Your task to perform on an android device: View the shopping cart on target. Image 0: 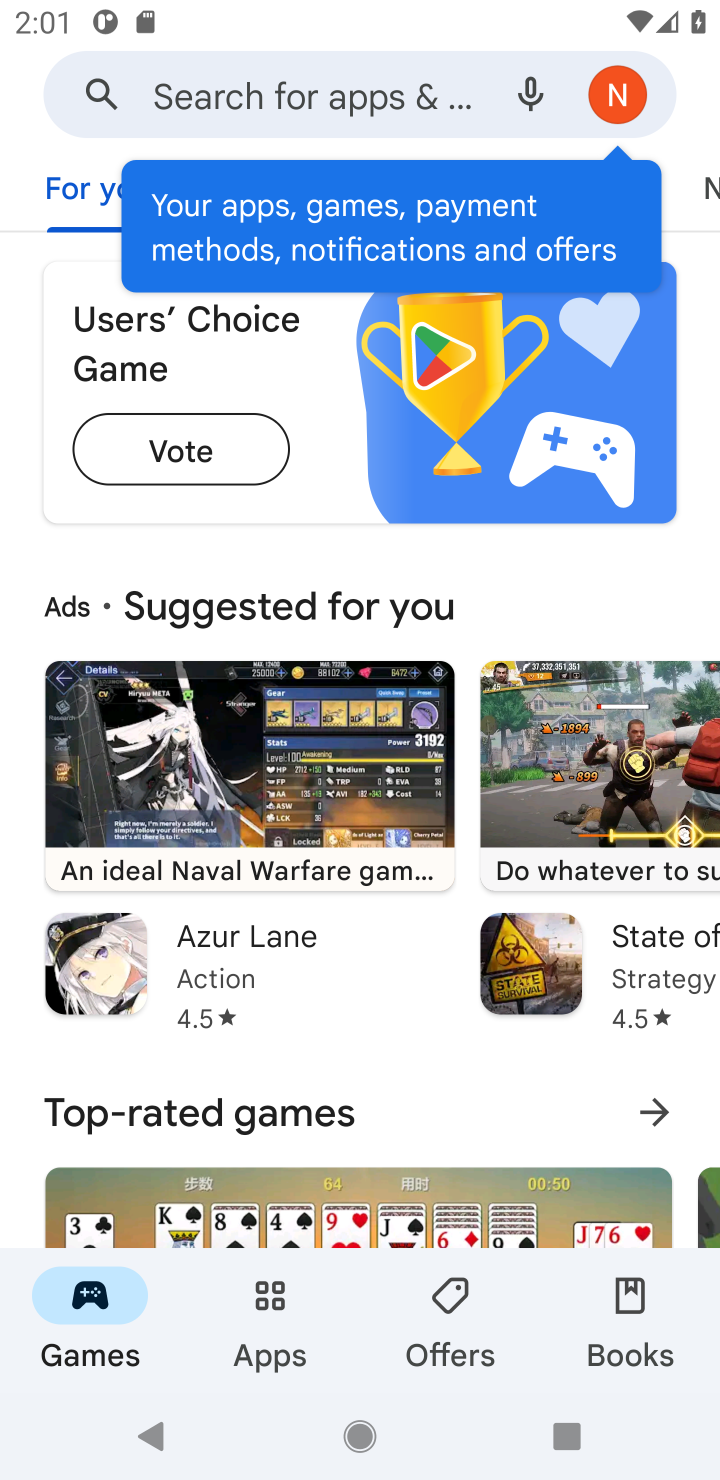
Step 0: press home button
Your task to perform on an android device: View the shopping cart on target. Image 1: 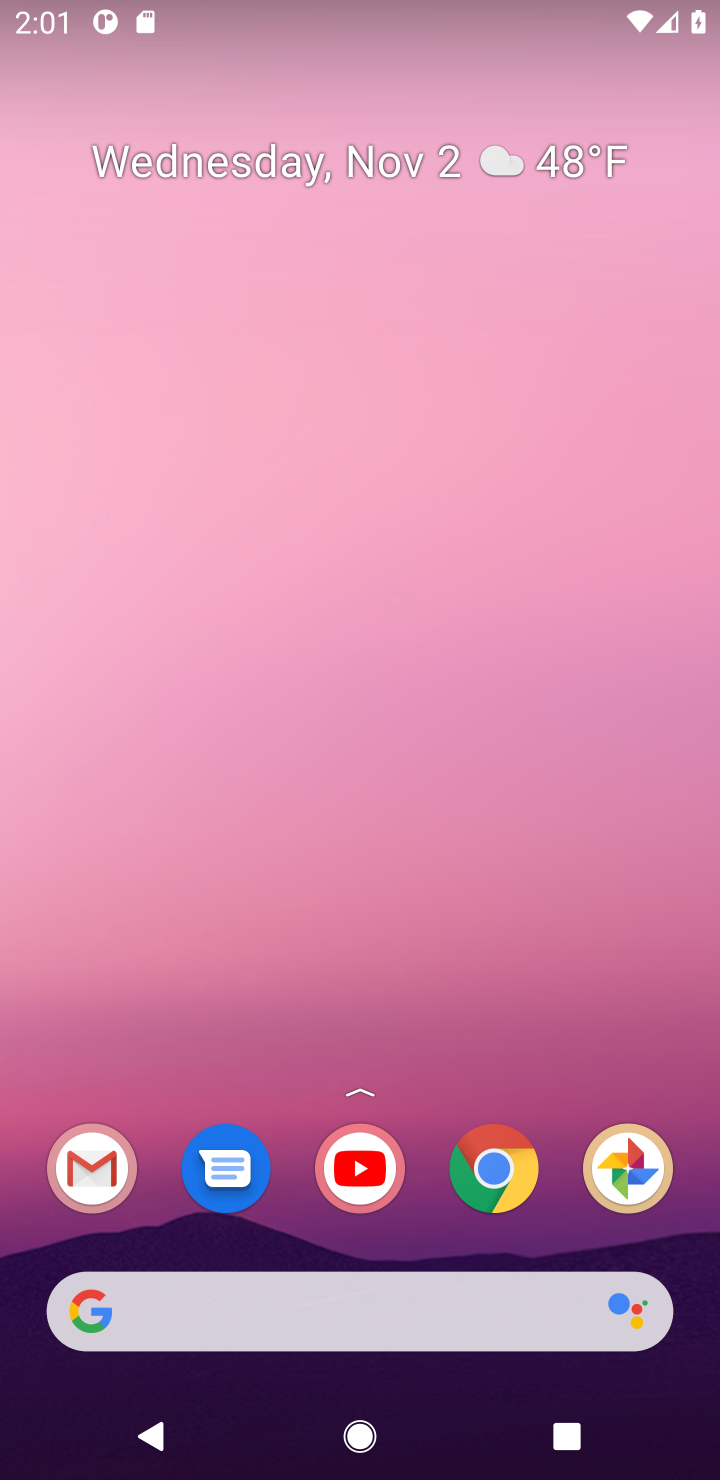
Step 1: click (682, 1224)
Your task to perform on an android device: View the shopping cart on target. Image 2: 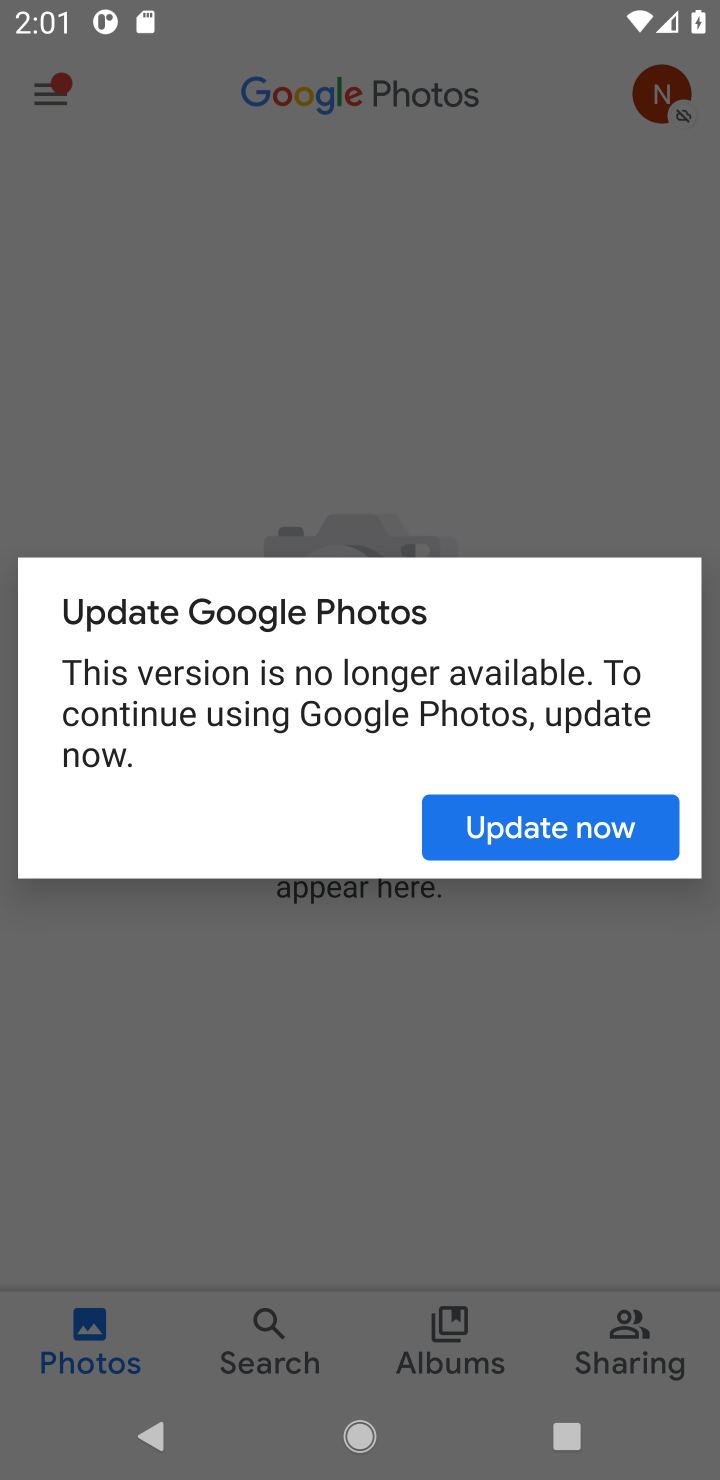
Step 2: press home button
Your task to perform on an android device: View the shopping cart on target. Image 3: 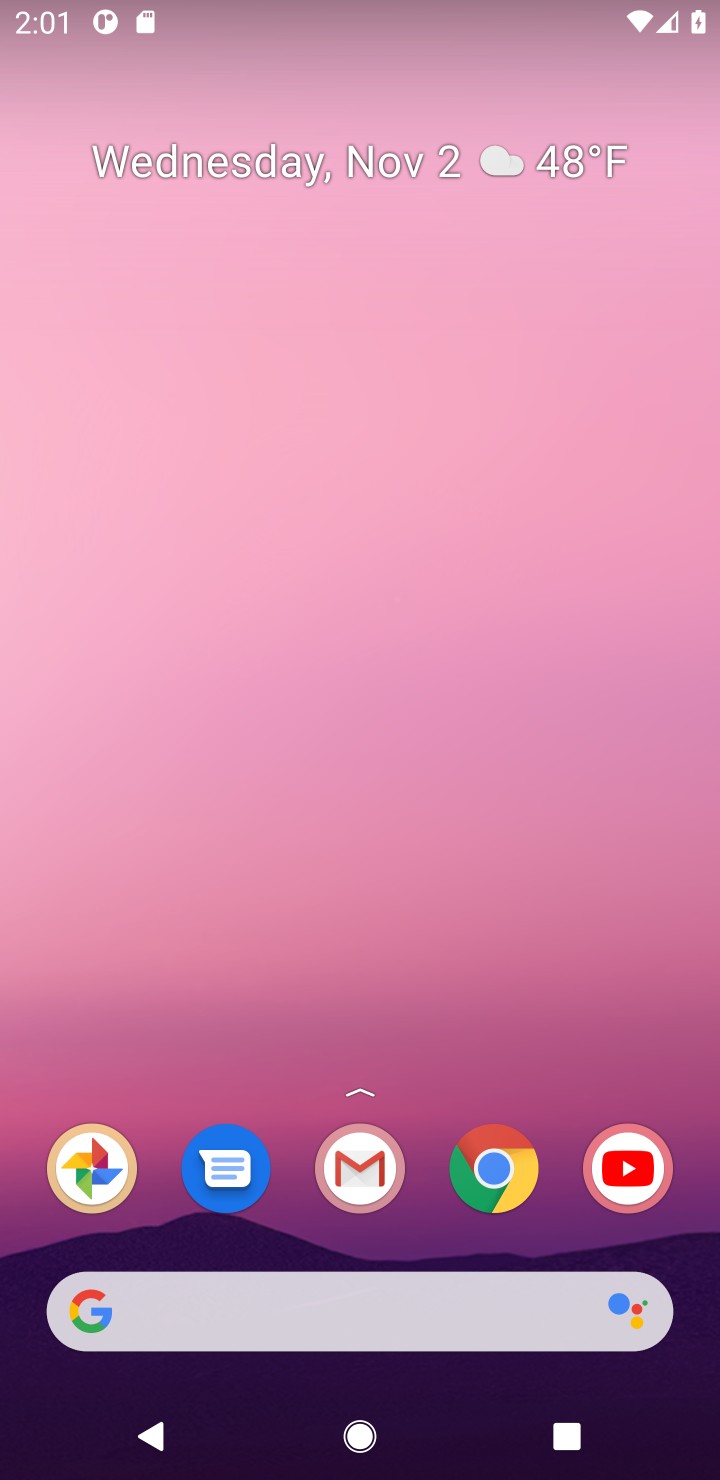
Step 3: click (362, 1283)
Your task to perform on an android device: View the shopping cart on target. Image 4: 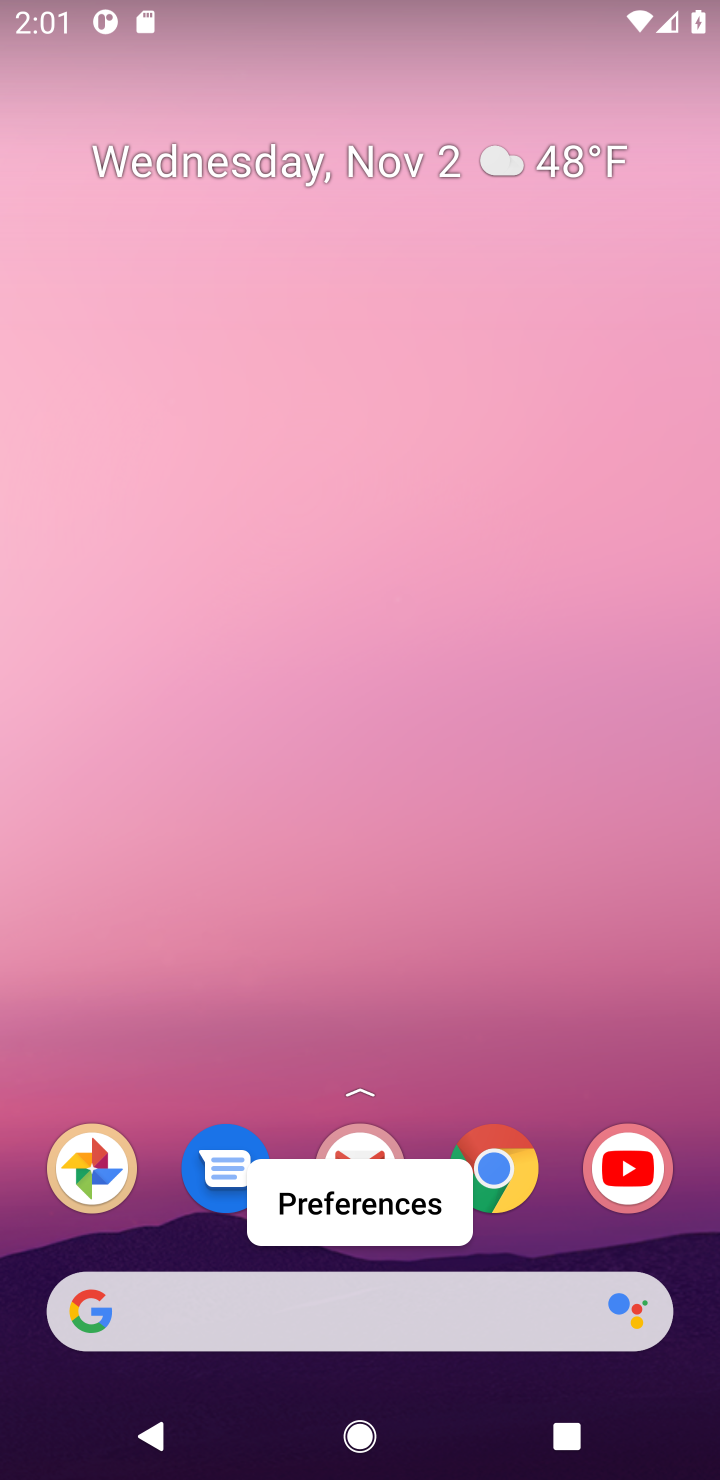
Step 4: click (302, 1315)
Your task to perform on an android device: View the shopping cart on target. Image 5: 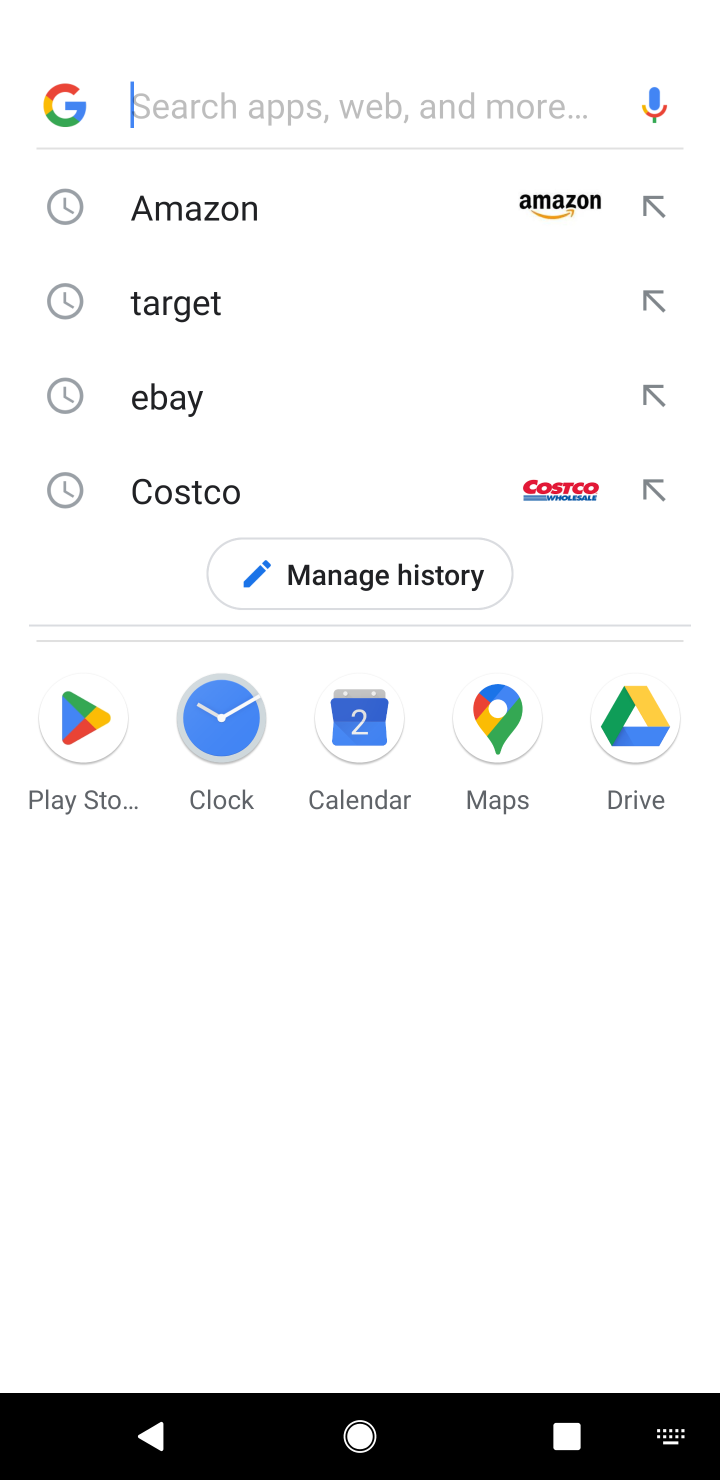
Step 5: type "target"
Your task to perform on an android device: View the shopping cart on target. Image 6: 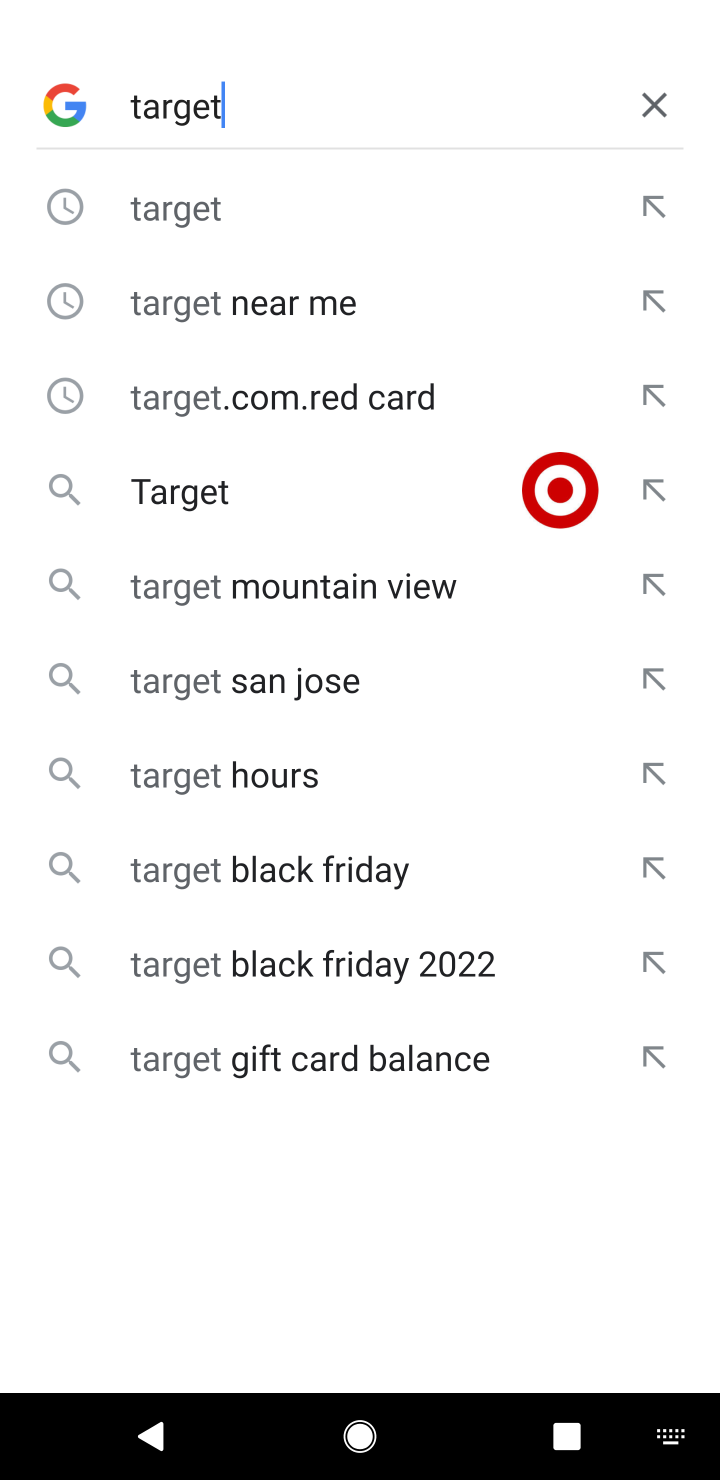
Step 6: click (440, 499)
Your task to perform on an android device: View the shopping cart on target. Image 7: 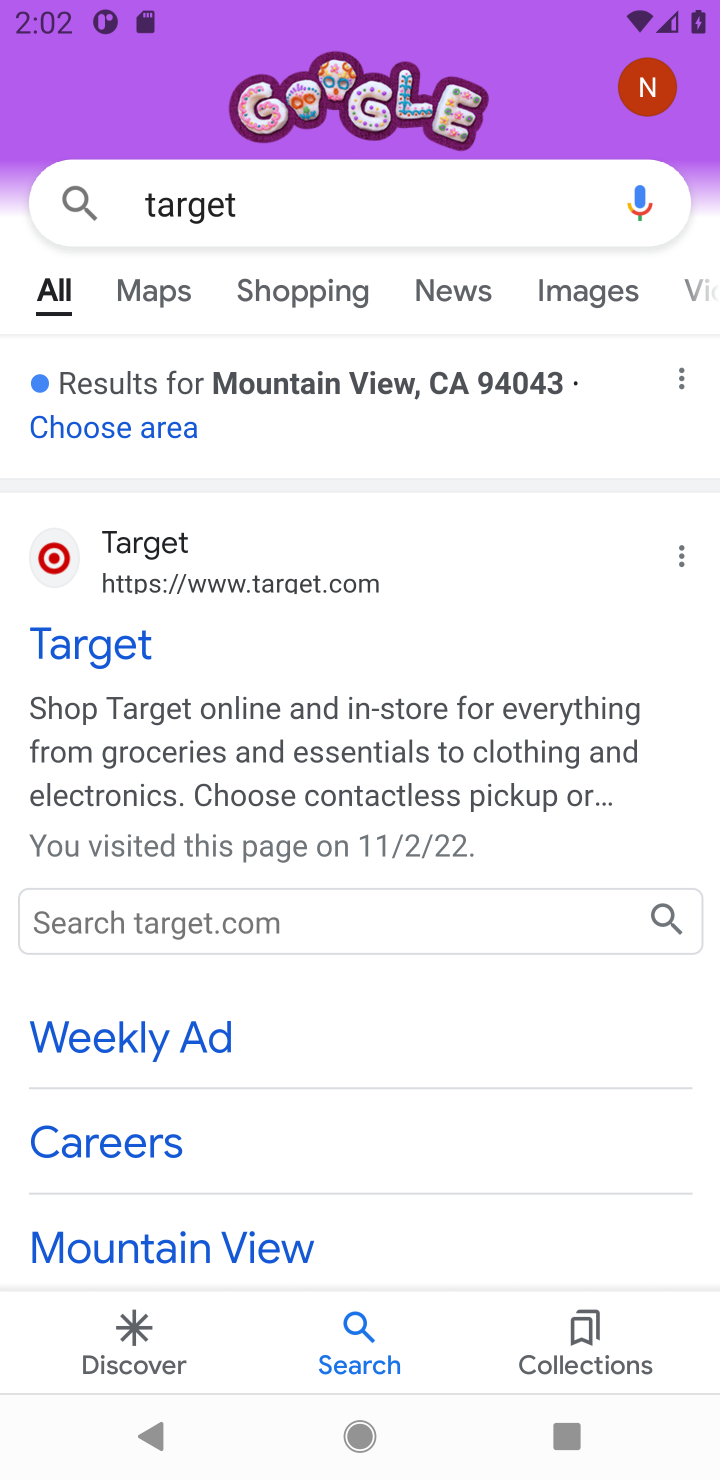
Step 7: click (139, 570)
Your task to perform on an android device: View the shopping cart on target. Image 8: 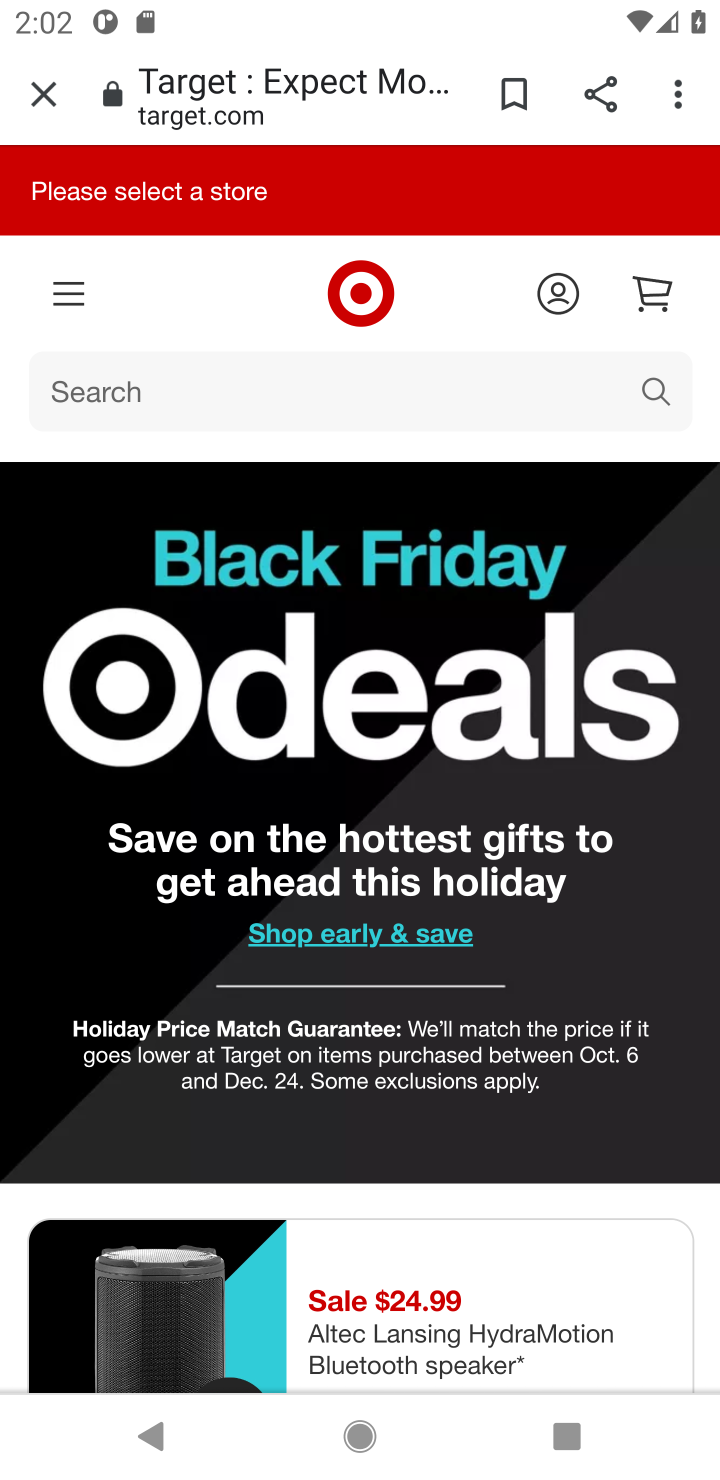
Step 8: click (331, 379)
Your task to perform on an android device: View the shopping cart on target. Image 9: 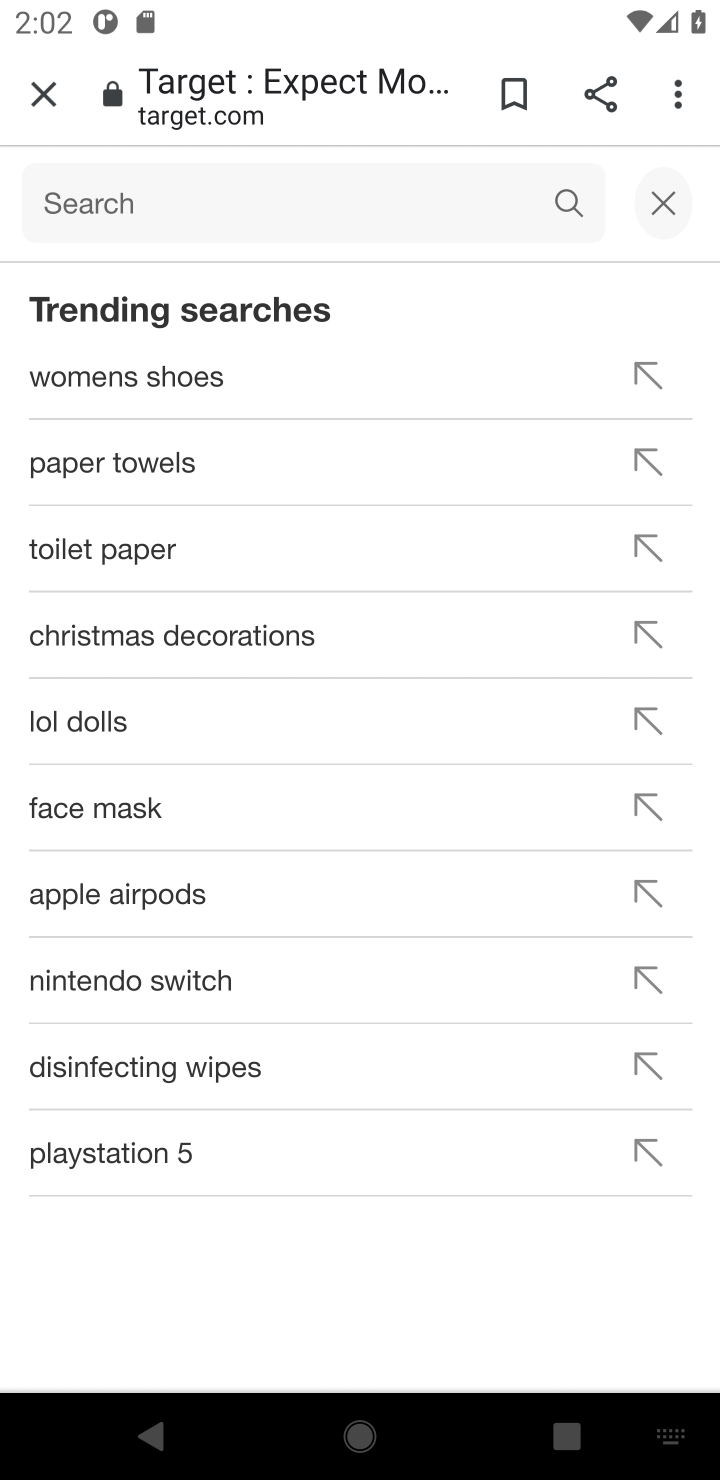
Step 9: click (666, 189)
Your task to perform on an android device: View the shopping cart on target. Image 10: 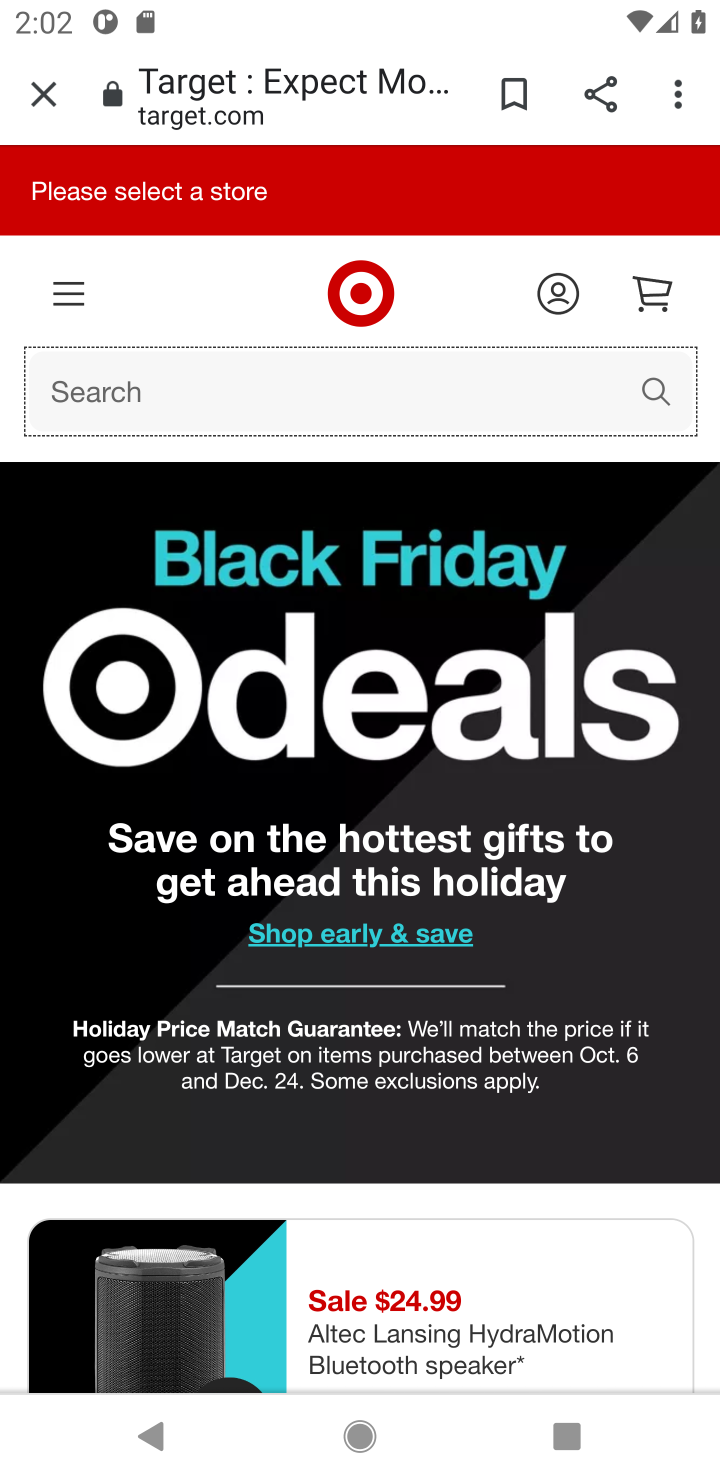
Step 10: click (656, 294)
Your task to perform on an android device: View the shopping cart on target. Image 11: 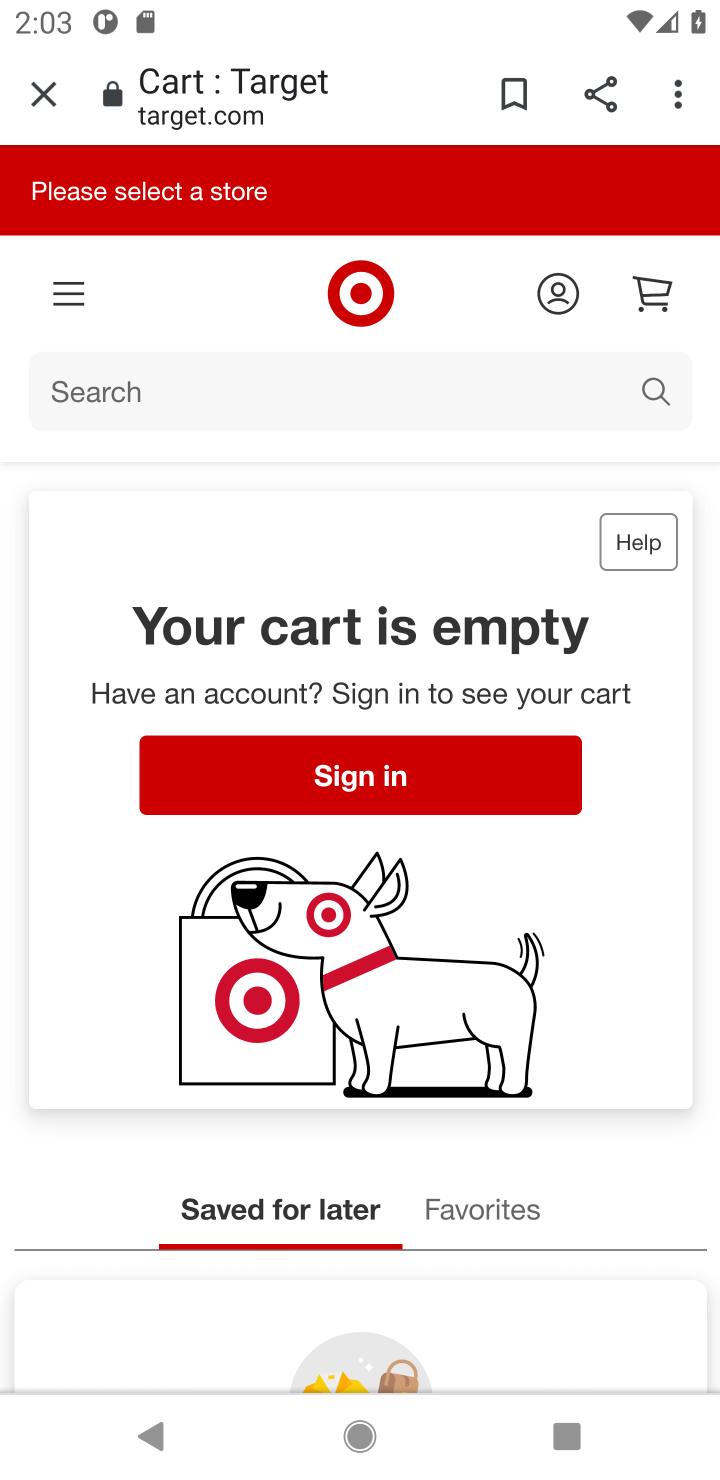
Step 11: task complete